Your task to perform on an android device: turn on javascript in the chrome app Image 0: 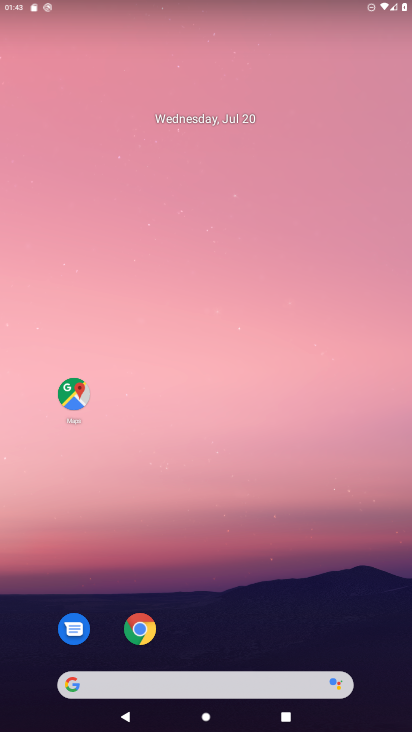
Step 0: click (130, 634)
Your task to perform on an android device: turn on javascript in the chrome app Image 1: 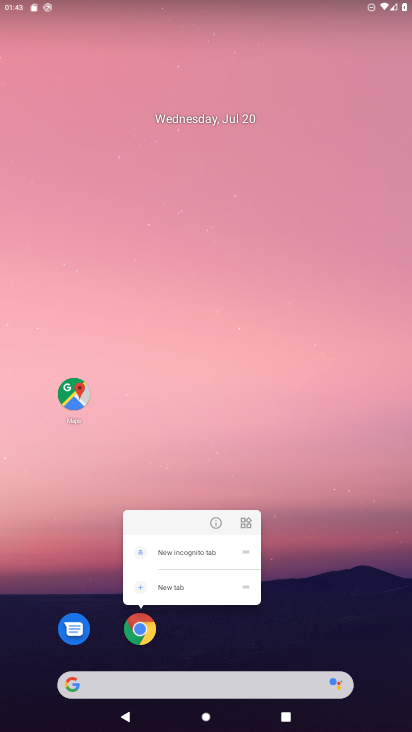
Step 1: click (139, 632)
Your task to perform on an android device: turn on javascript in the chrome app Image 2: 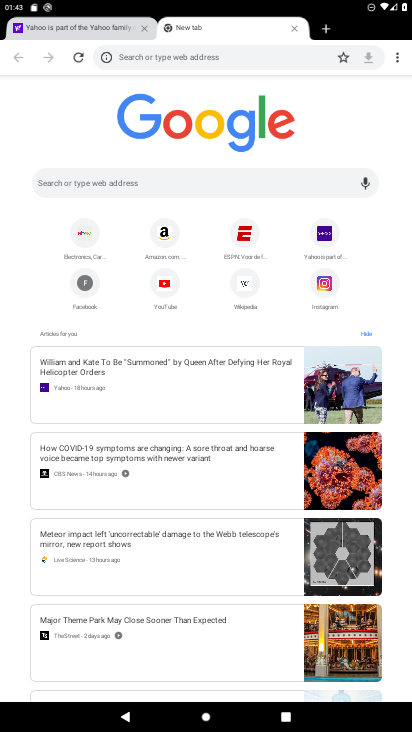
Step 2: click (400, 59)
Your task to perform on an android device: turn on javascript in the chrome app Image 3: 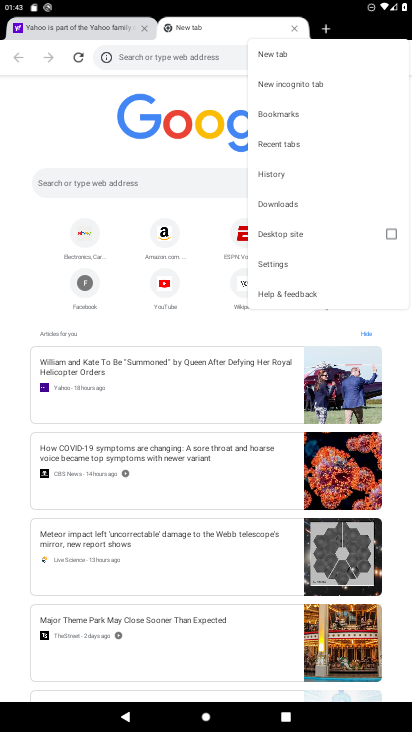
Step 3: click (286, 267)
Your task to perform on an android device: turn on javascript in the chrome app Image 4: 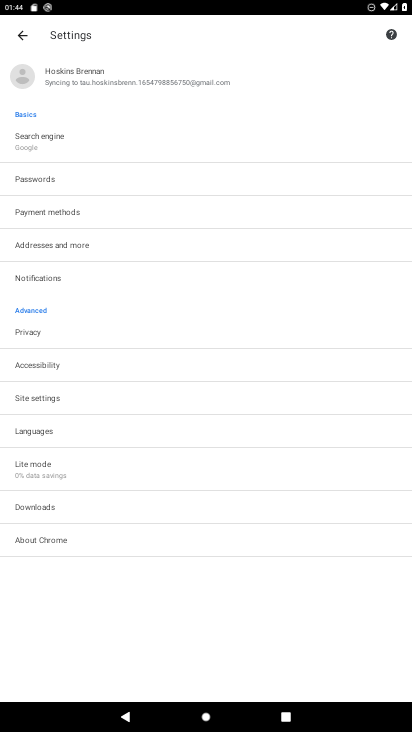
Step 4: click (37, 396)
Your task to perform on an android device: turn on javascript in the chrome app Image 5: 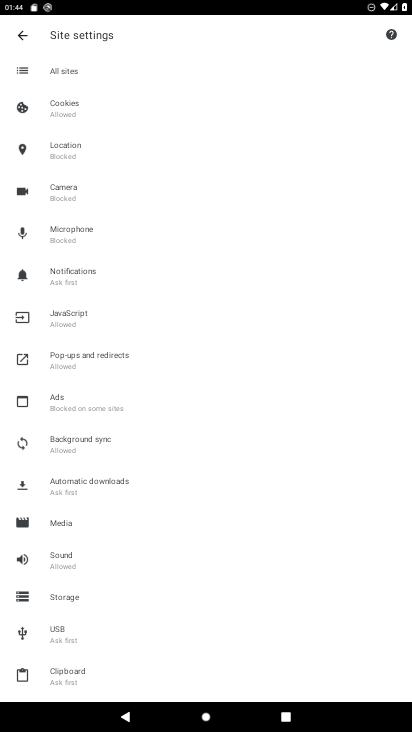
Step 5: click (68, 316)
Your task to perform on an android device: turn on javascript in the chrome app Image 6: 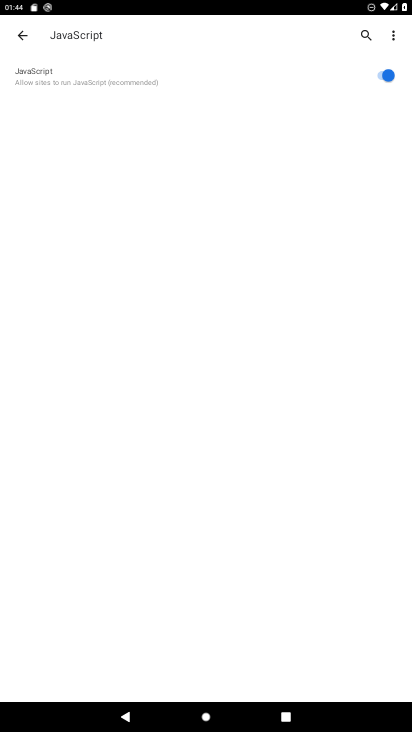
Step 6: task complete